Your task to perform on an android device: open app "Expedia: Hotels, Flights & Car" (install if not already installed), go to login, and select forgot password Image 0: 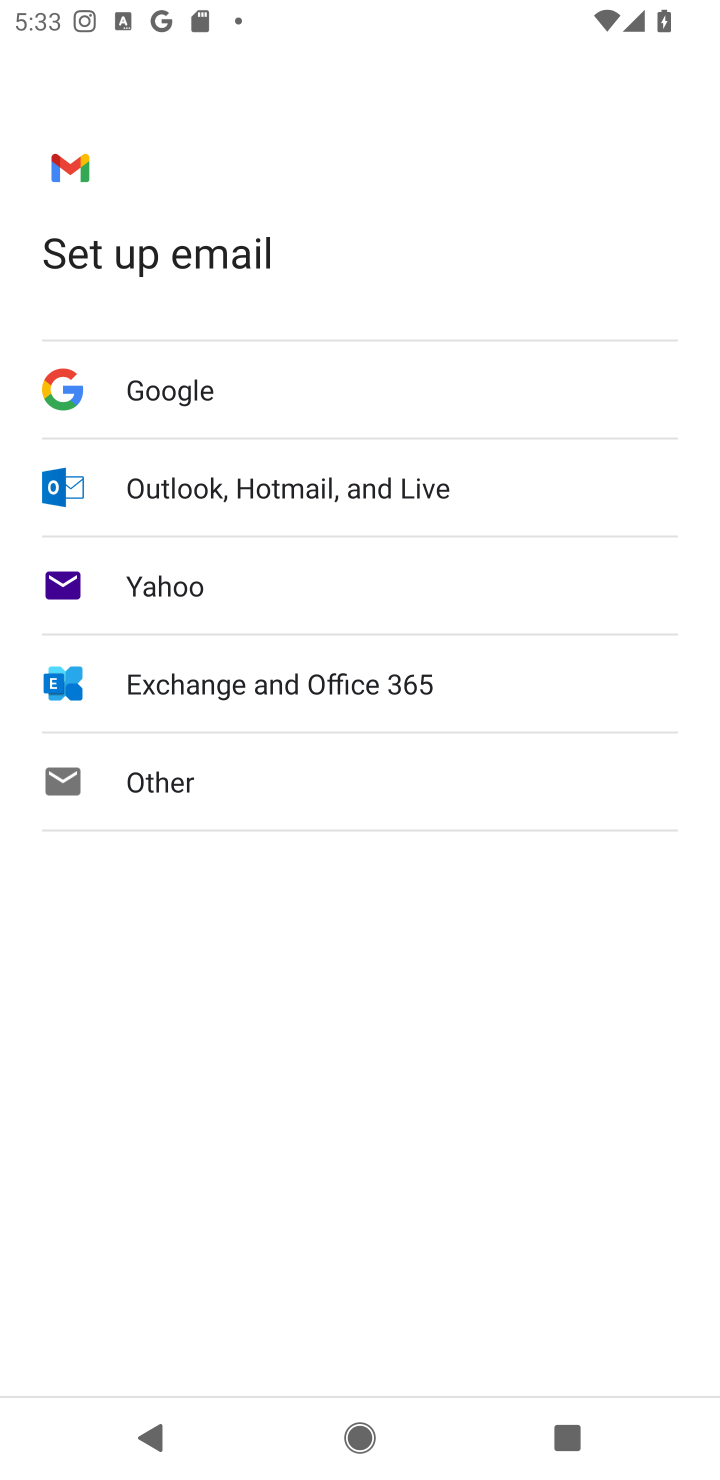
Step 0: press home button
Your task to perform on an android device: open app "Expedia: Hotels, Flights & Car" (install if not already installed), go to login, and select forgot password Image 1: 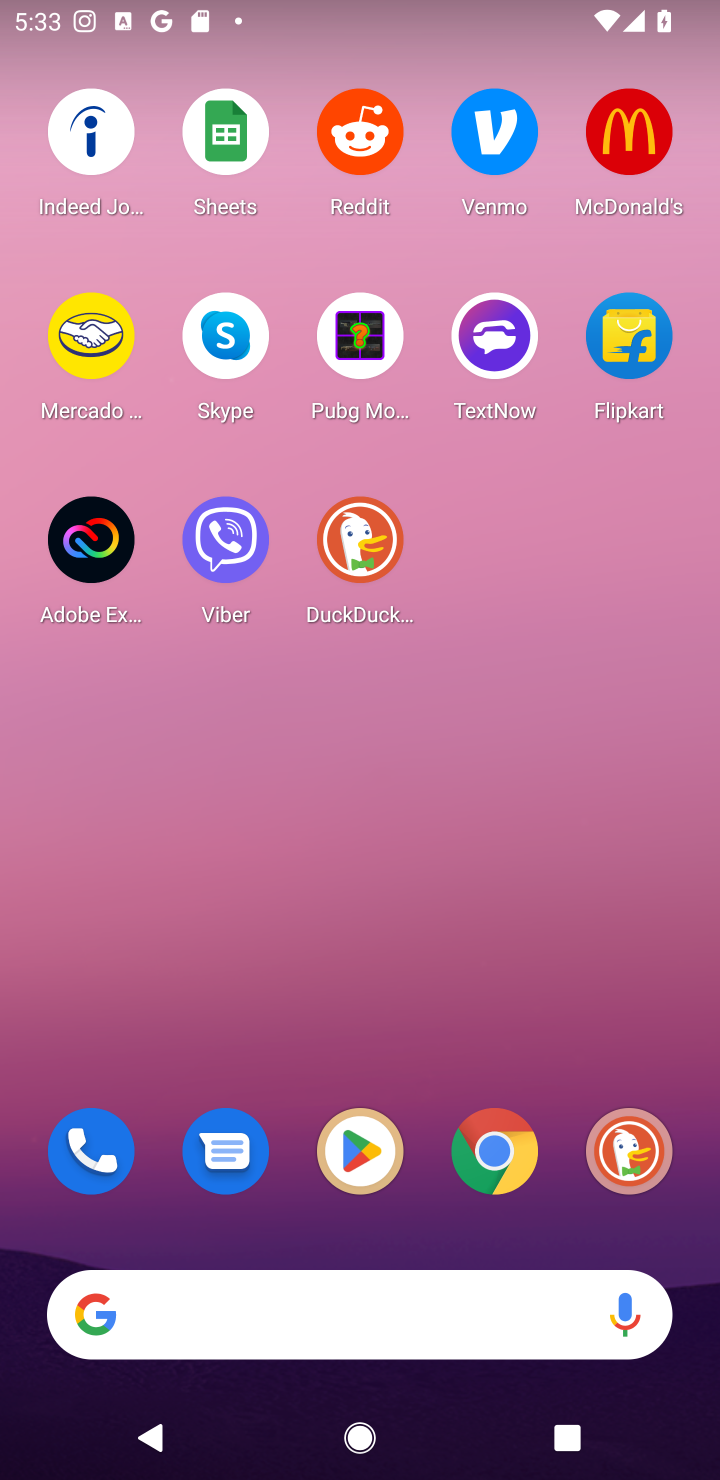
Step 1: press home button
Your task to perform on an android device: open app "Expedia: Hotels, Flights & Car" (install if not already installed), go to login, and select forgot password Image 2: 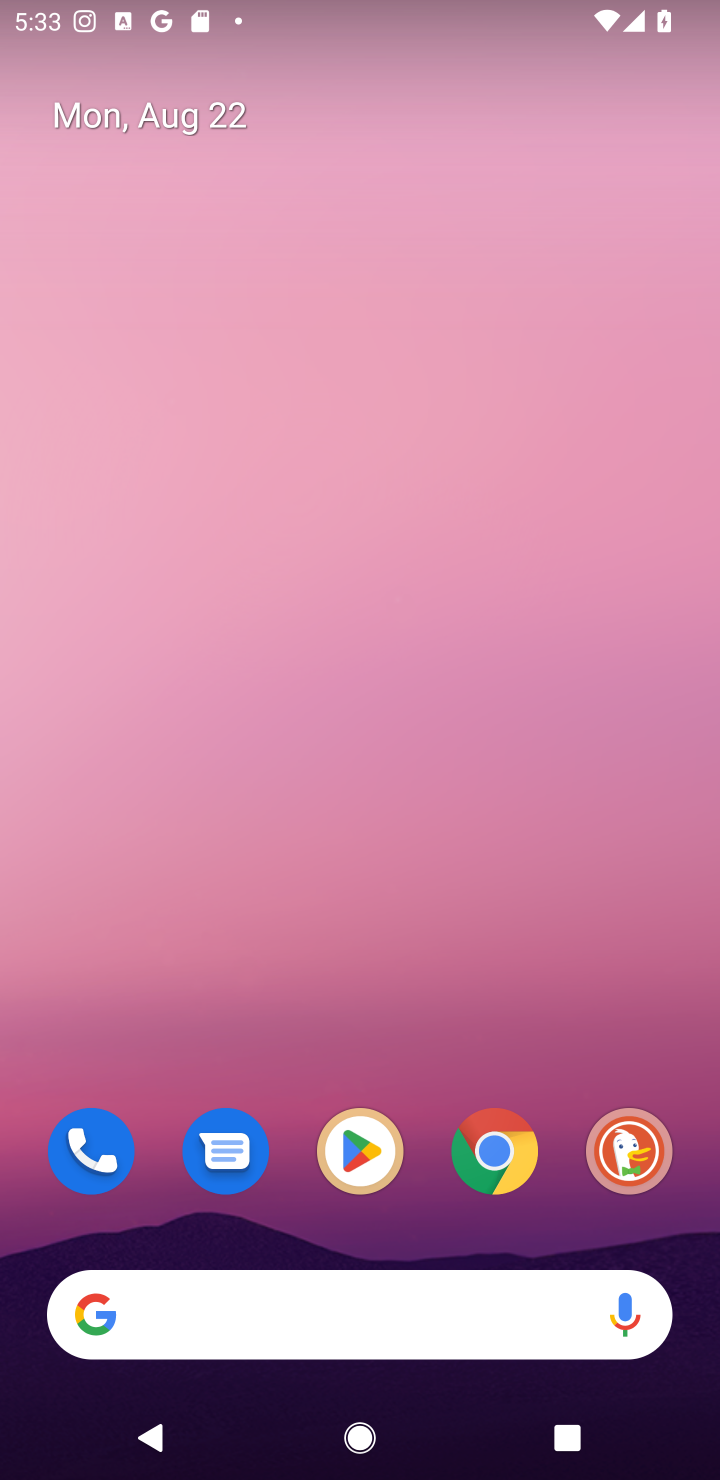
Step 2: click (349, 1147)
Your task to perform on an android device: open app "Expedia: Hotels, Flights & Car" (install if not already installed), go to login, and select forgot password Image 3: 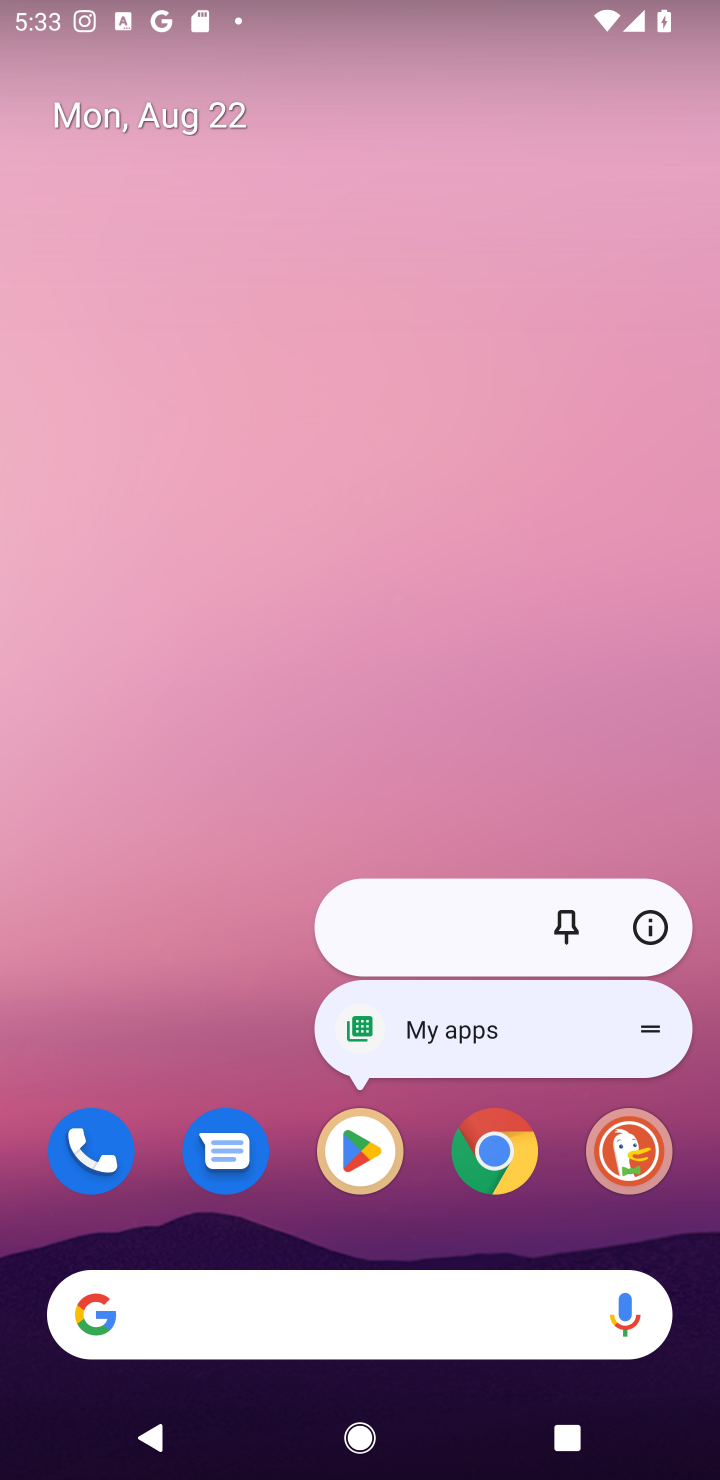
Step 3: click (349, 1158)
Your task to perform on an android device: open app "Expedia: Hotels, Flights & Car" (install if not already installed), go to login, and select forgot password Image 4: 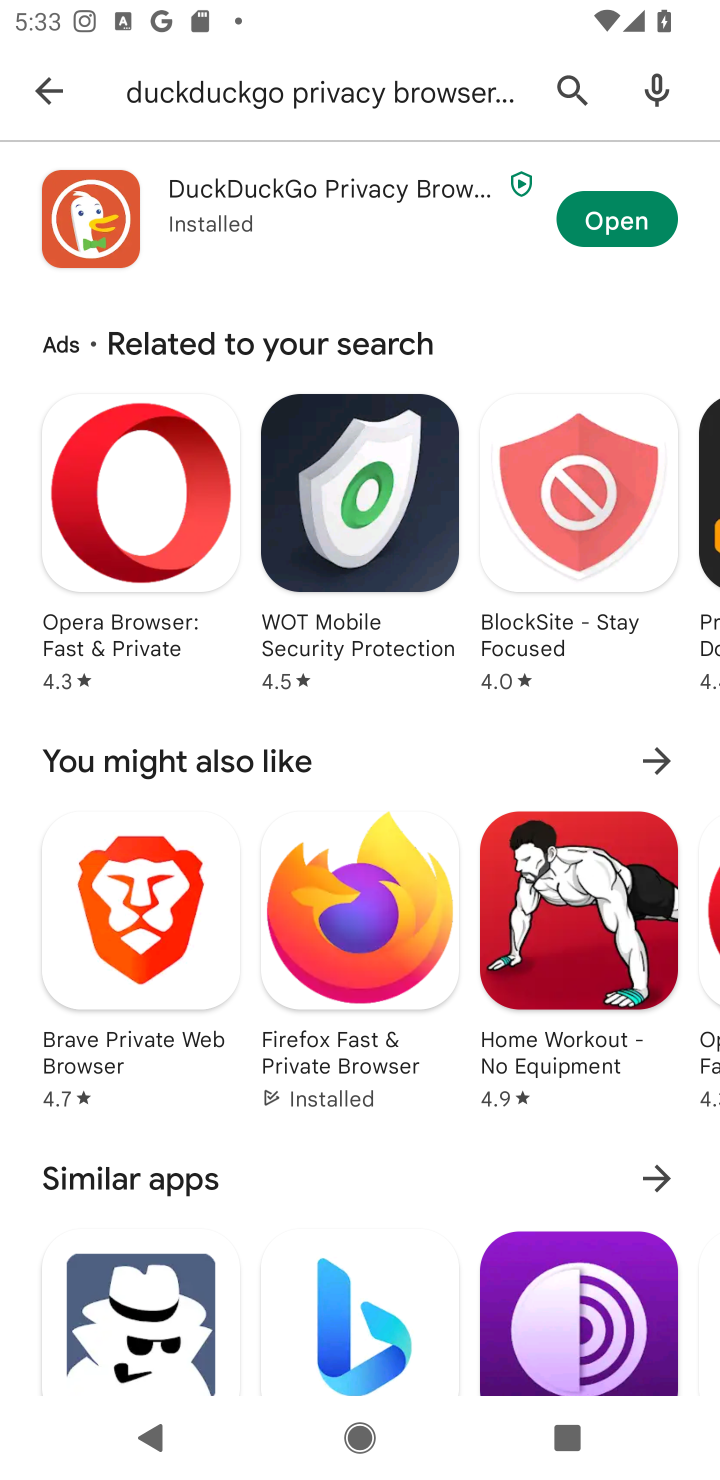
Step 4: click (553, 68)
Your task to perform on an android device: open app "Expedia: Hotels, Flights & Car" (install if not already installed), go to login, and select forgot password Image 5: 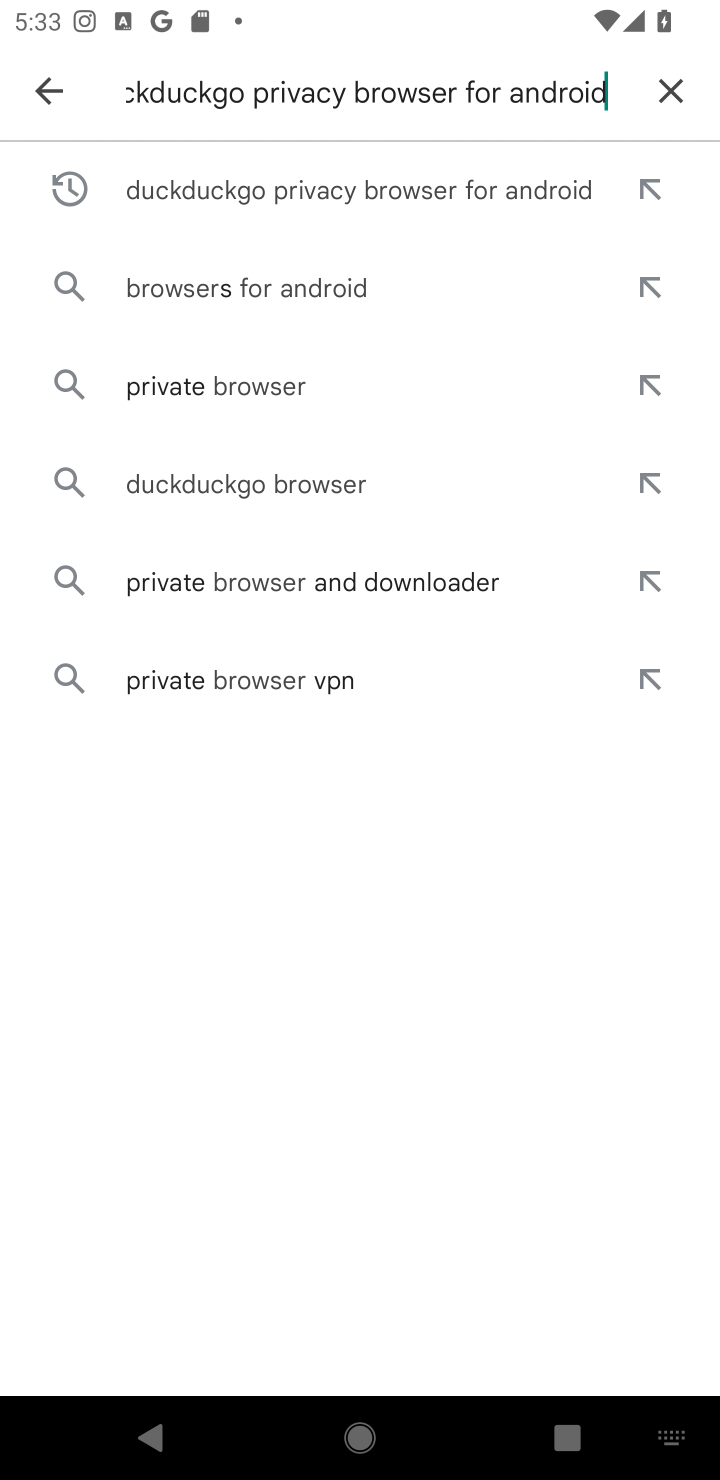
Step 5: click (666, 80)
Your task to perform on an android device: open app "Expedia: Hotels, Flights & Car" (install if not already installed), go to login, and select forgot password Image 6: 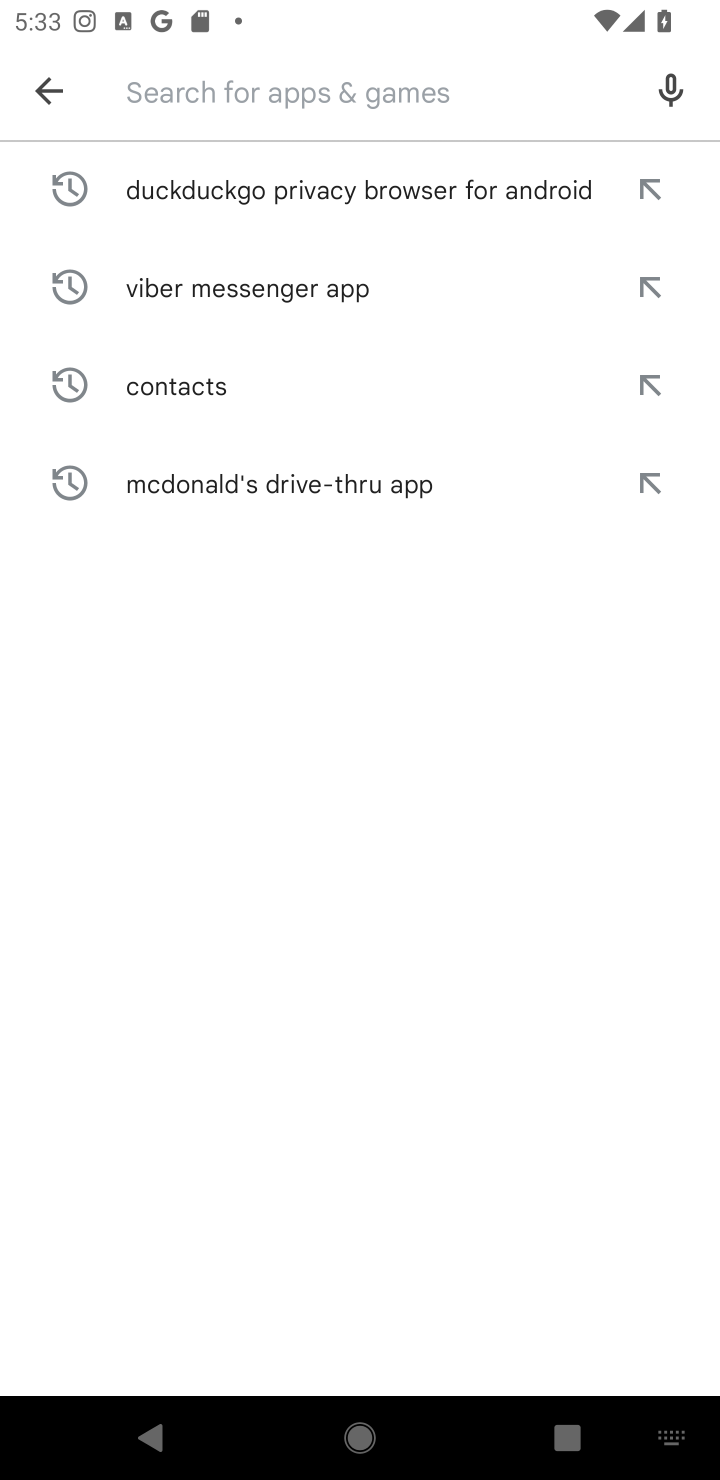
Step 6: type "Expedia: Hotels, Flights & Car"
Your task to perform on an android device: open app "Expedia: Hotels, Flights & Car" (install if not already installed), go to login, and select forgot password Image 7: 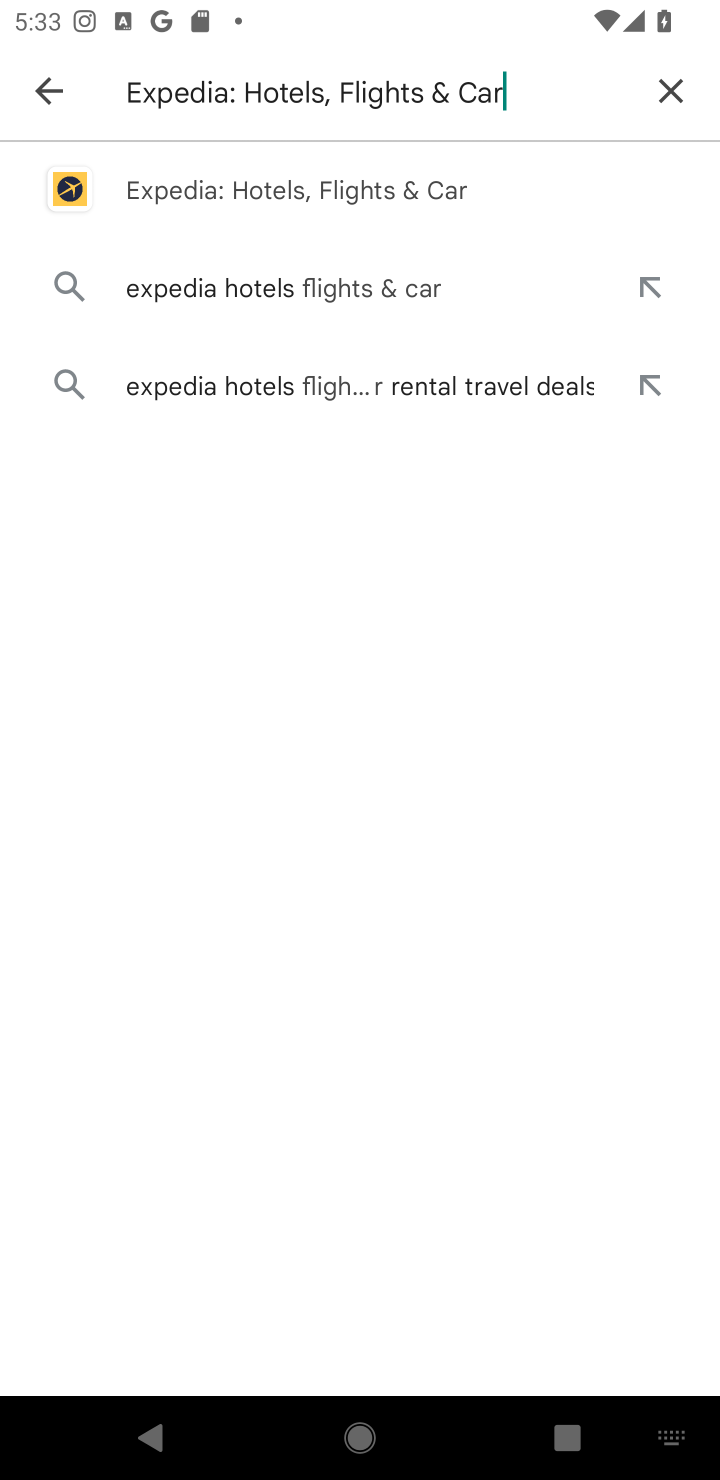
Step 7: click (323, 186)
Your task to perform on an android device: open app "Expedia: Hotels, Flights & Car" (install if not already installed), go to login, and select forgot password Image 8: 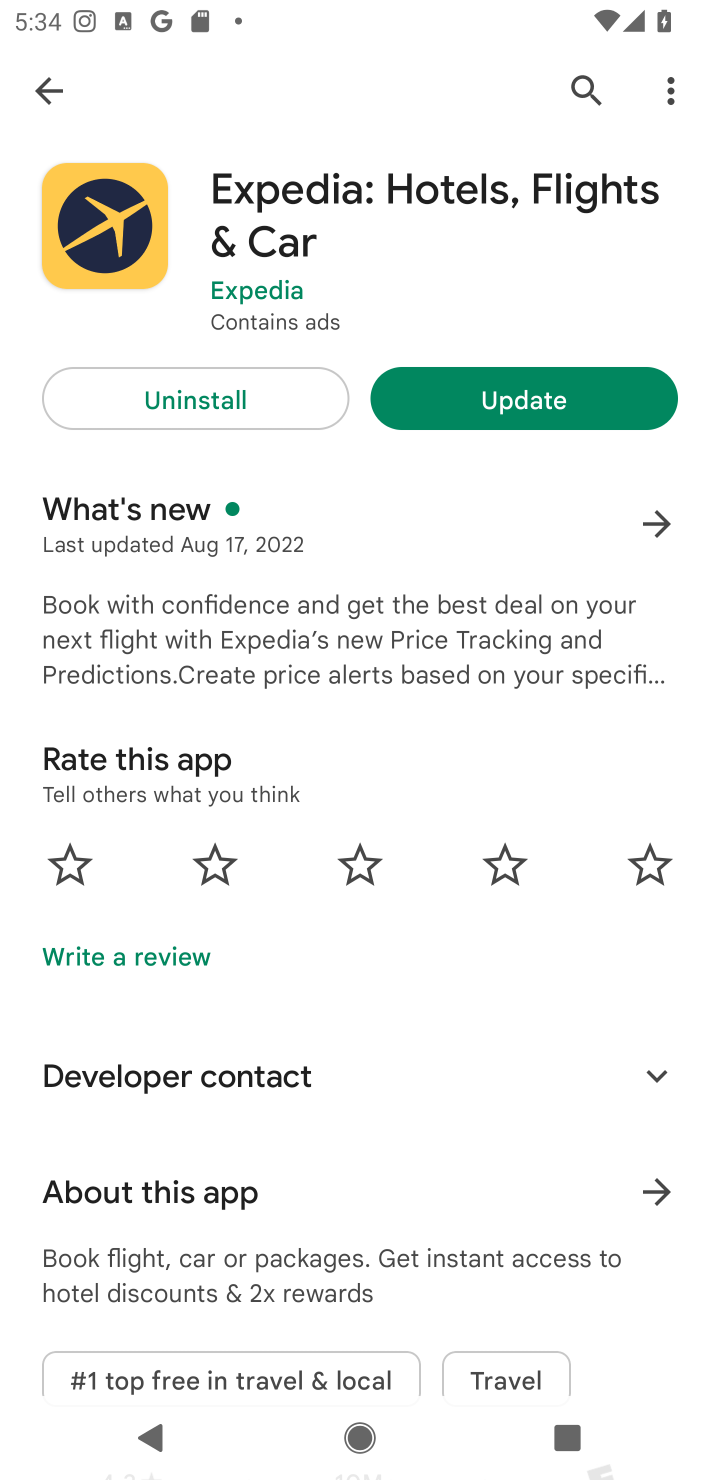
Step 8: click (562, 426)
Your task to perform on an android device: open app "Expedia: Hotels, Flights & Car" (install if not already installed), go to login, and select forgot password Image 9: 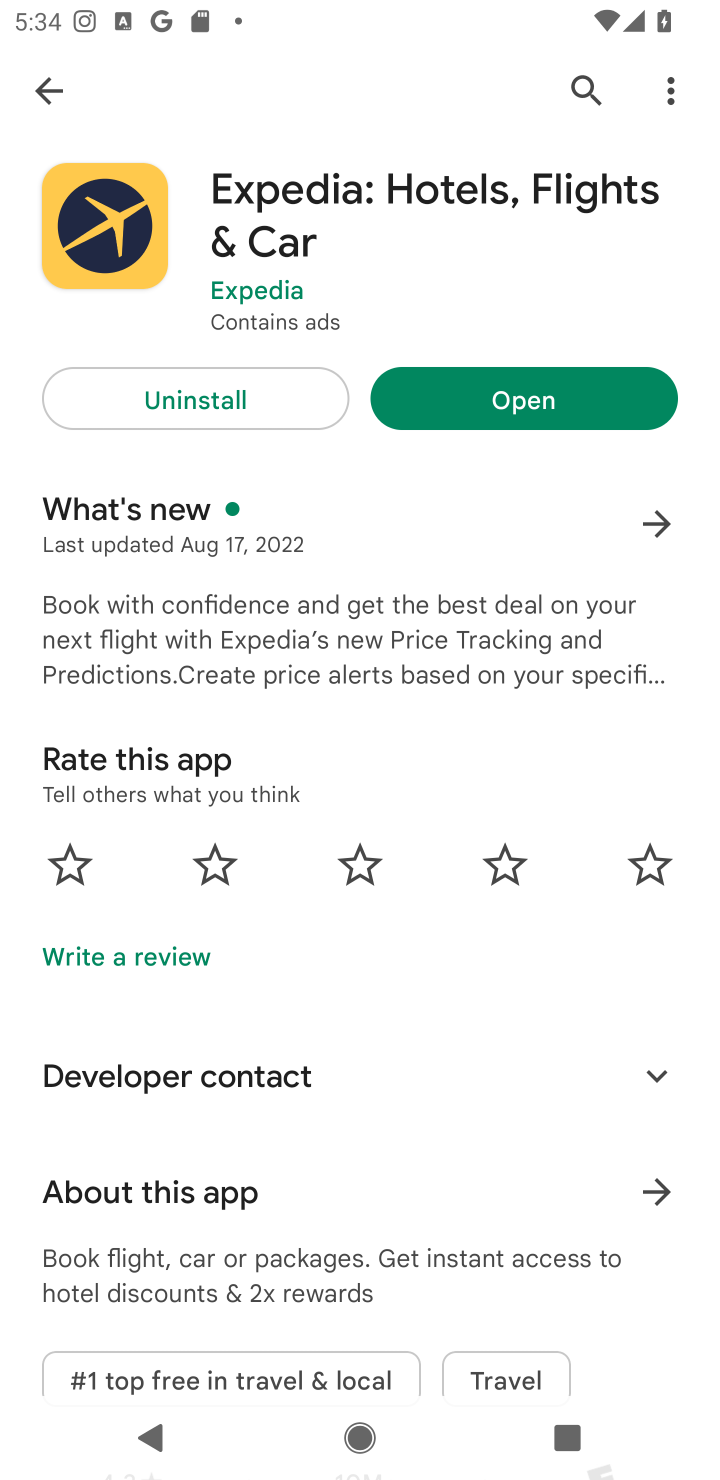
Step 9: click (560, 397)
Your task to perform on an android device: open app "Expedia: Hotels, Flights & Car" (install if not already installed), go to login, and select forgot password Image 10: 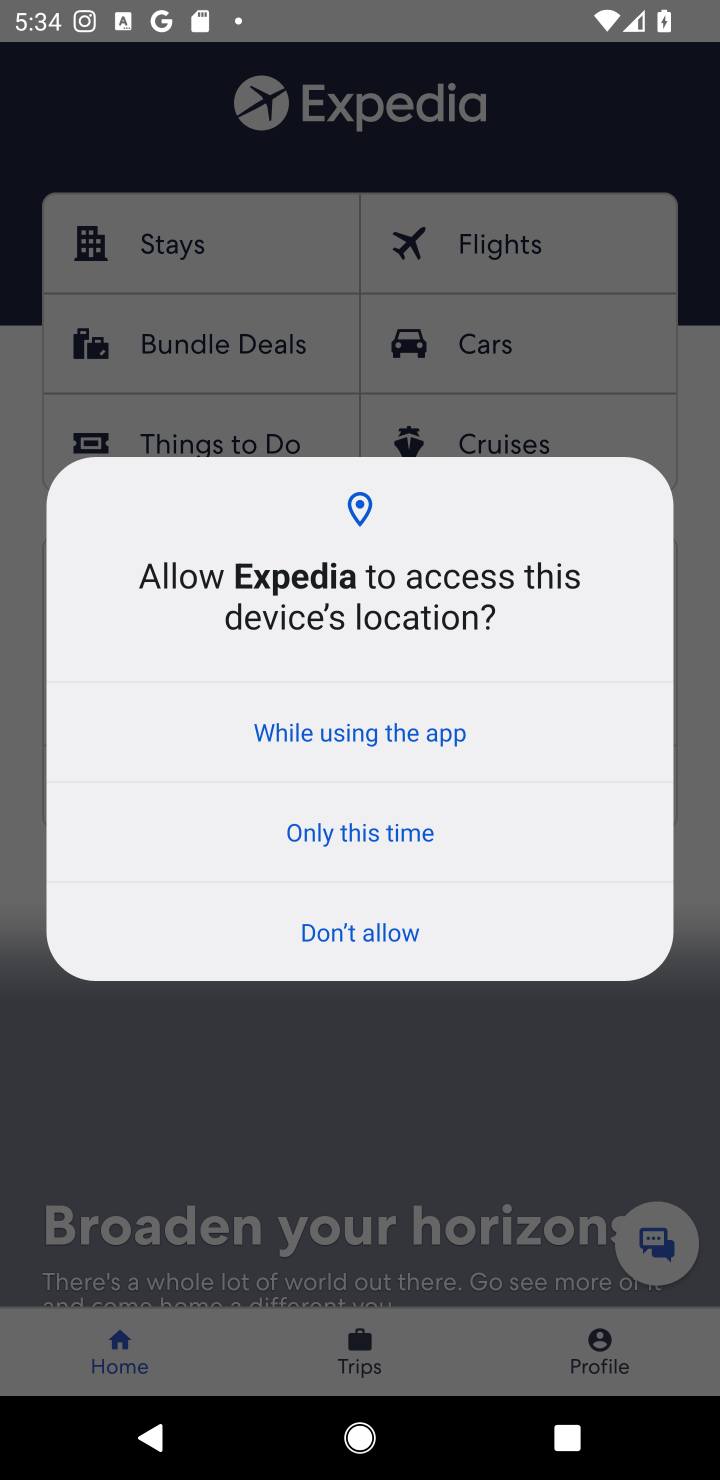
Step 10: click (370, 814)
Your task to perform on an android device: open app "Expedia: Hotels, Flights & Car" (install if not already installed), go to login, and select forgot password Image 11: 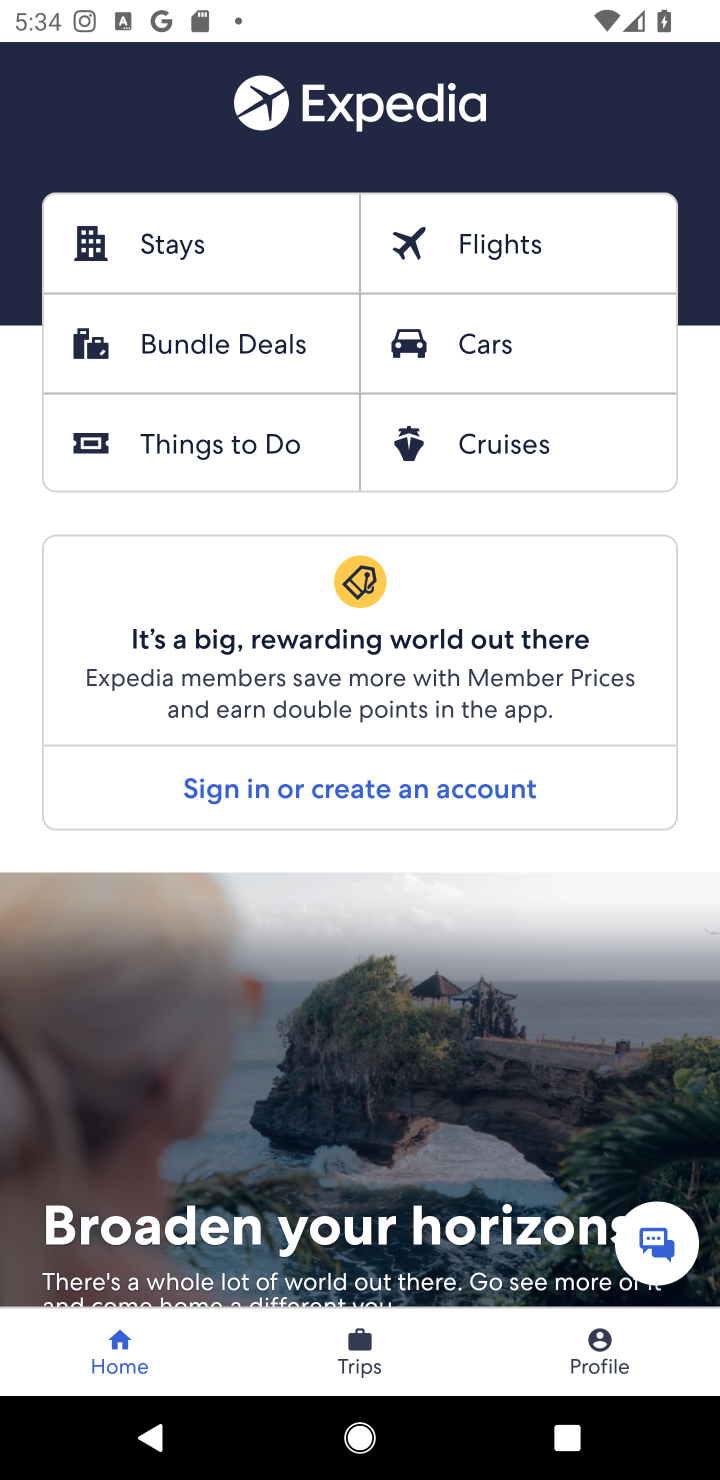
Step 11: task complete